Your task to perform on an android device: remove spam from my inbox in the gmail app Image 0: 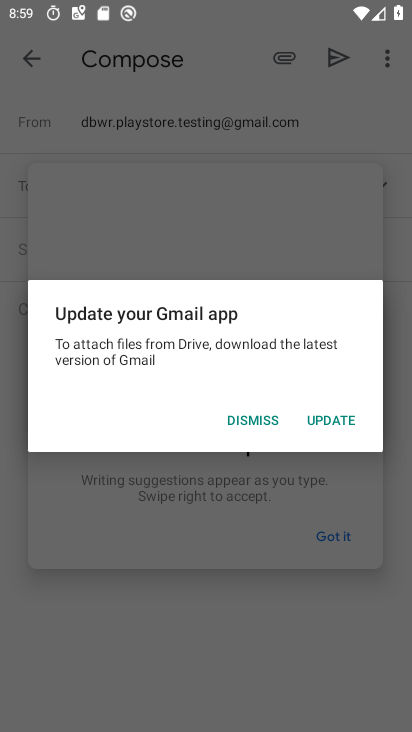
Step 0: click (330, 538)
Your task to perform on an android device: remove spam from my inbox in the gmail app Image 1: 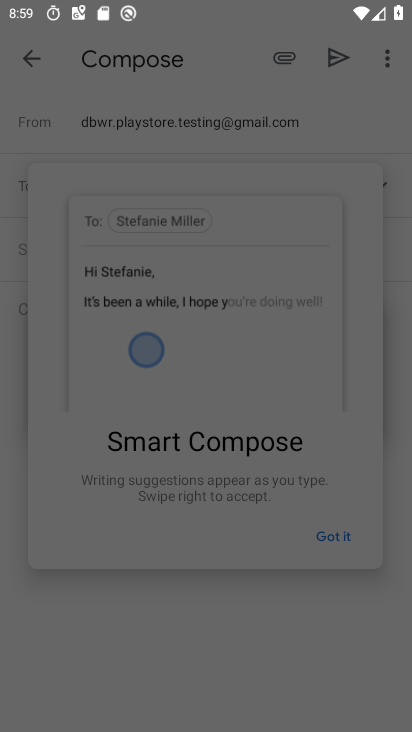
Step 1: press back button
Your task to perform on an android device: remove spam from my inbox in the gmail app Image 2: 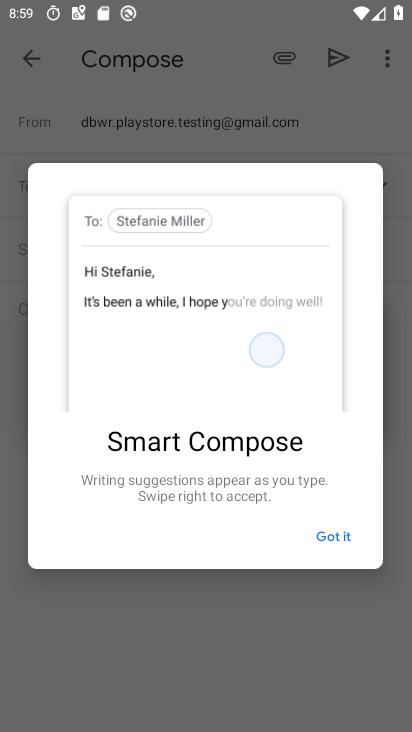
Step 2: press back button
Your task to perform on an android device: remove spam from my inbox in the gmail app Image 3: 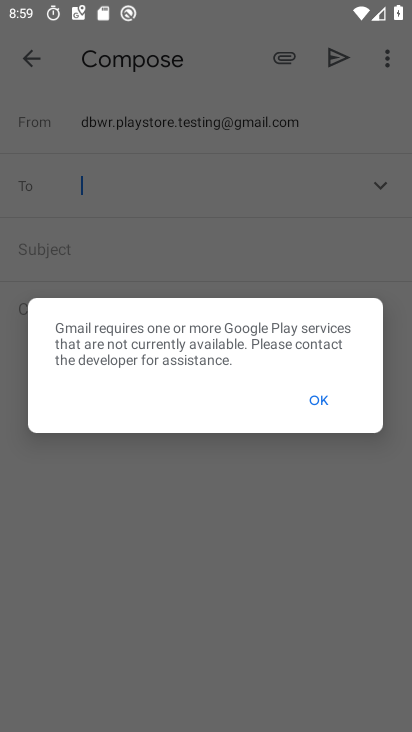
Step 3: click (312, 397)
Your task to perform on an android device: remove spam from my inbox in the gmail app Image 4: 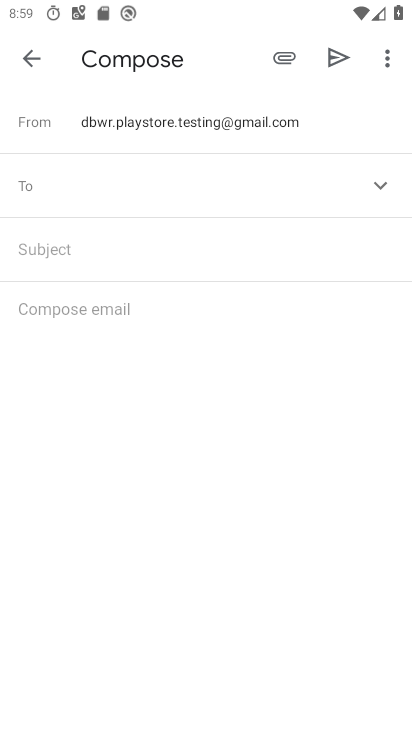
Step 4: click (29, 60)
Your task to perform on an android device: remove spam from my inbox in the gmail app Image 5: 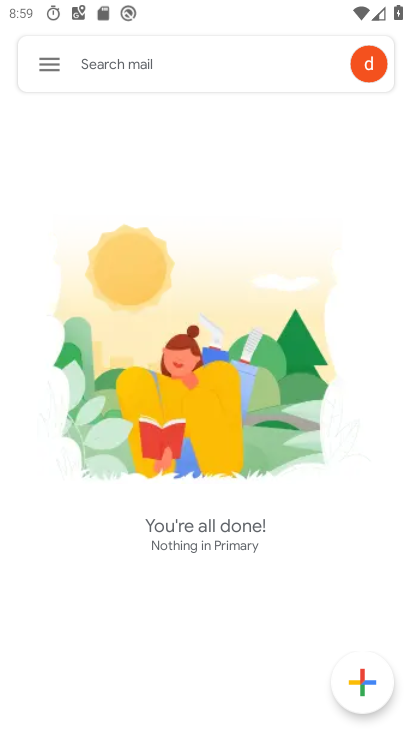
Step 5: press home button
Your task to perform on an android device: remove spam from my inbox in the gmail app Image 6: 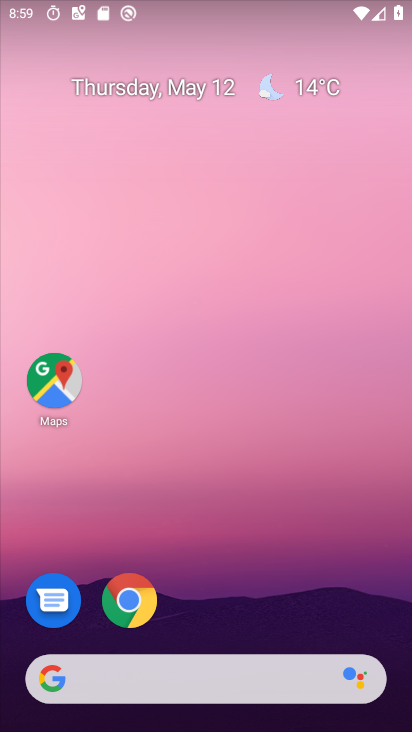
Step 6: click (90, 8)
Your task to perform on an android device: remove spam from my inbox in the gmail app Image 7: 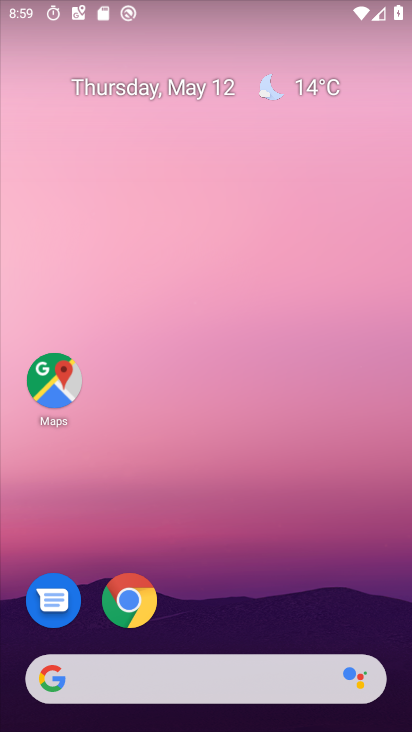
Step 7: drag from (293, 498) to (148, 10)
Your task to perform on an android device: remove spam from my inbox in the gmail app Image 8: 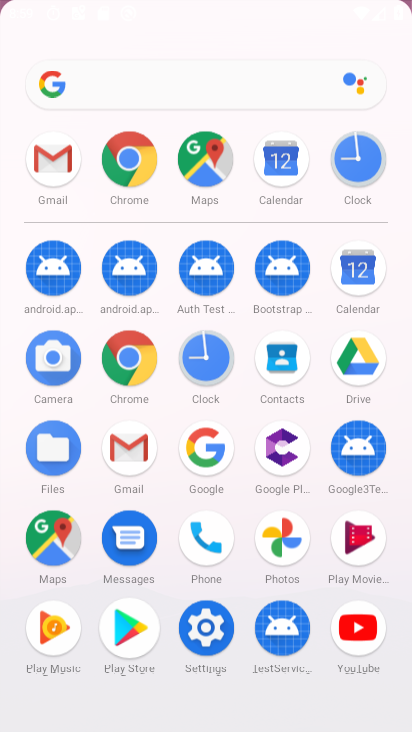
Step 8: drag from (272, 535) to (280, 72)
Your task to perform on an android device: remove spam from my inbox in the gmail app Image 9: 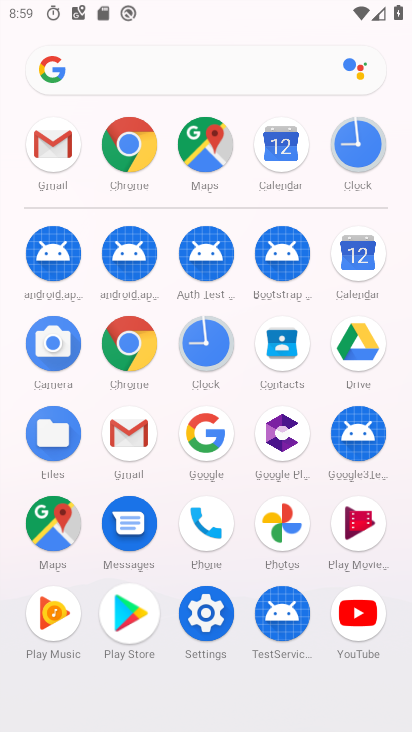
Step 9: click (115, 419)
Your task to perform on an android device: remove spam from my inbox in the gmail app Image 10: 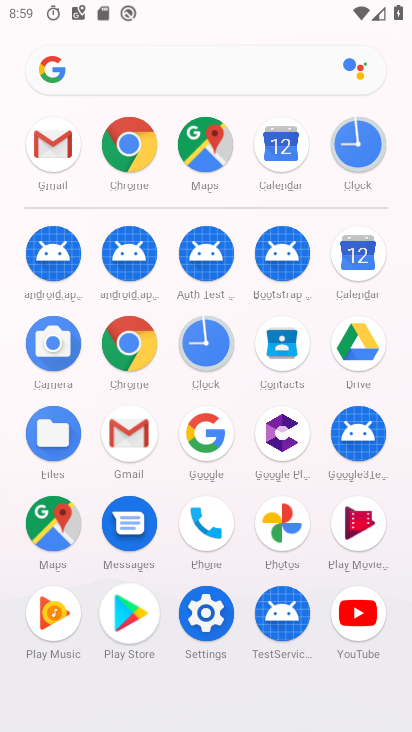
Step 10: click (120, 437)
Your task to perform on an android device: remove spam from my inbox in the gmail app Image 11: 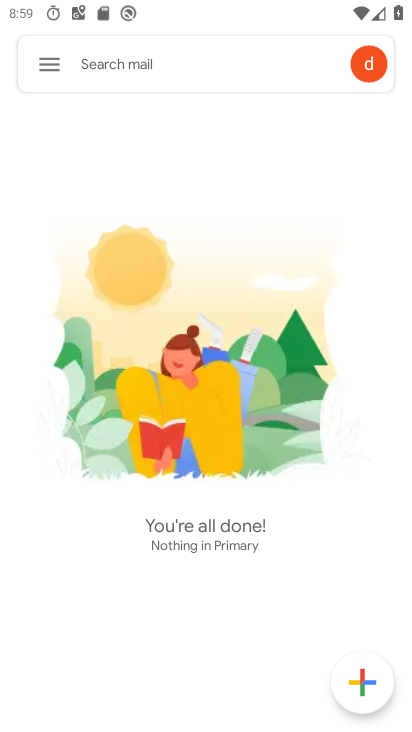
Step 11: click (39, 70)
Your task to perform on an android device: remove spam from my inbox in the gmail app Image 12: 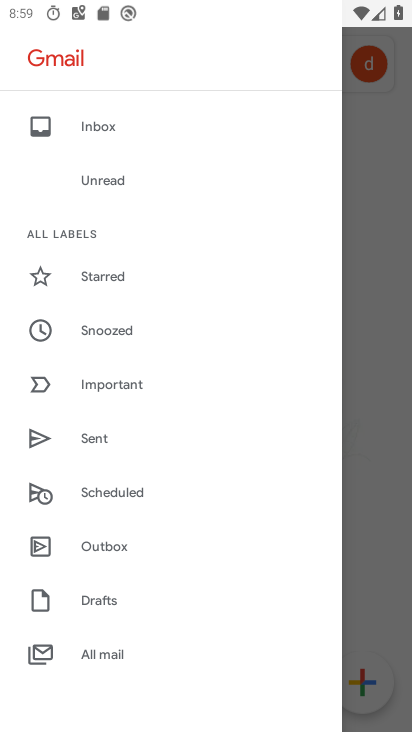
Step 12: drag from (138, 546) to (115, 367)
Your task to perform on an android device: remove spam from my inbox in the gmail app Image 13: 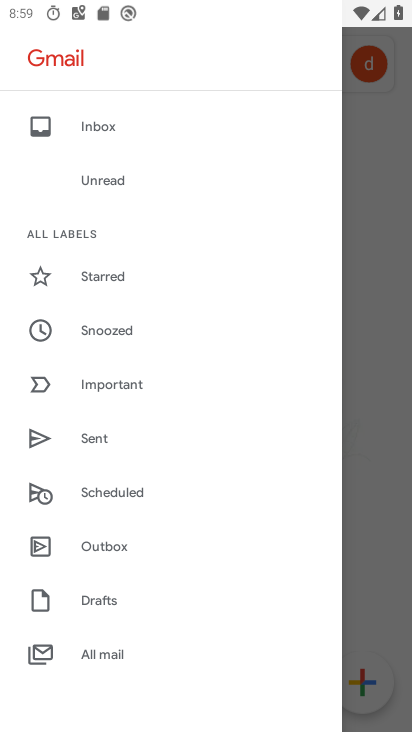
Step 13: drag from (121, 584) to (118, 331)
Your task to perform on an android device: remove spam from my inbox in the gmail app Image 14: 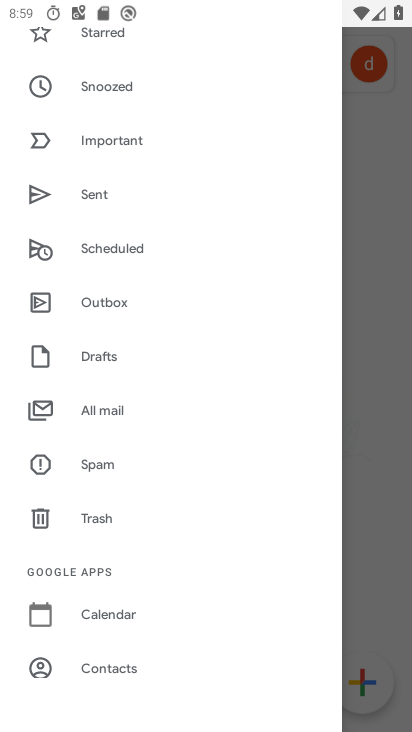
Step 14: drag from (137, 435) to (137, 217)
Your task to perform on an android device: remove spam from my inbox in the gmail app Image 15: 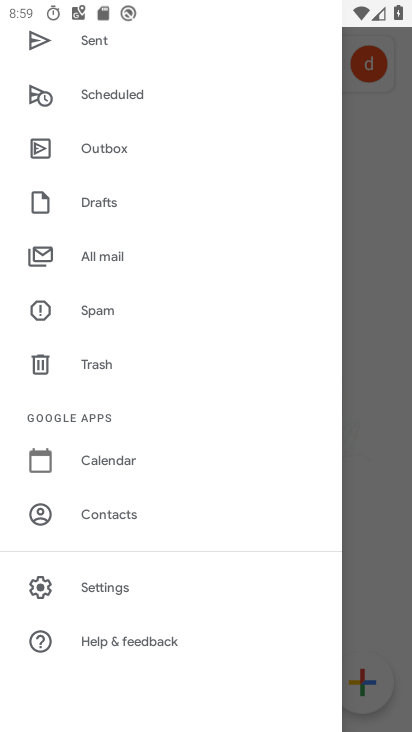
Step 15: click (90, 253)
Your task to perform on an android device: remove spam from my inbox in the gmail app Image 16: 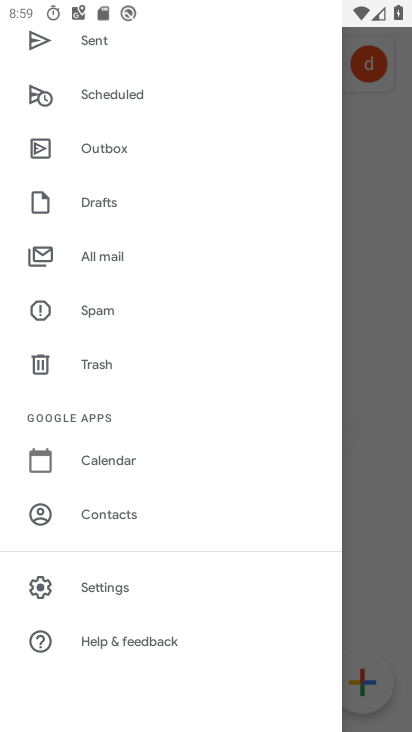
Step 16: click (95, 251)
Your task to perform on an android device: remove spam from my inbox in the gmail app Image 17: 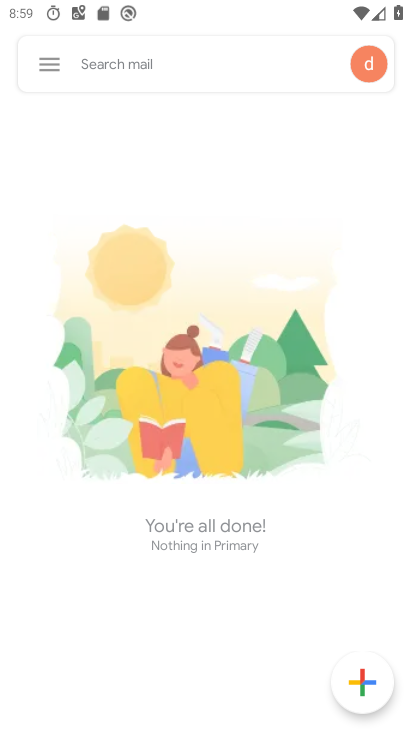
Step 17: click (96, 250)
Your task to perform on an android device: remove spam from my inbox in the gmail app Image 18: 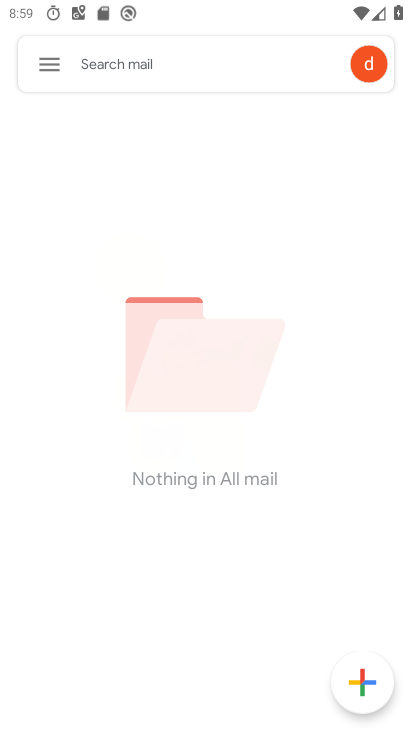
Step 18: click (94, 243)
Your task to perform on an android device: remove spam from my inbox in the gmail app Image 19: 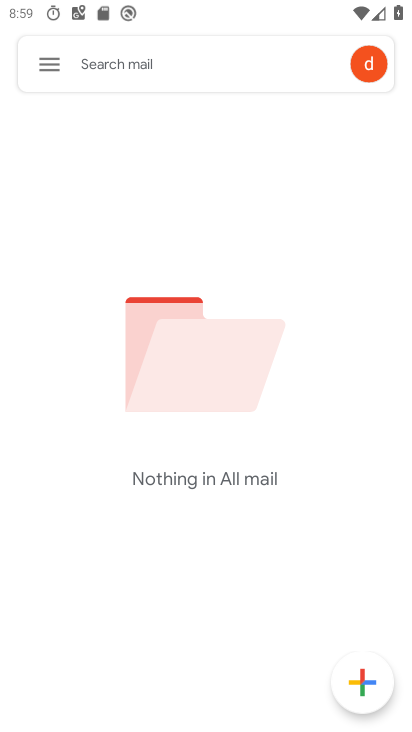
Step 19: task complete